Your task to perform on an android device: open app "Mercado Libre" (install if not already installed) Image 0: 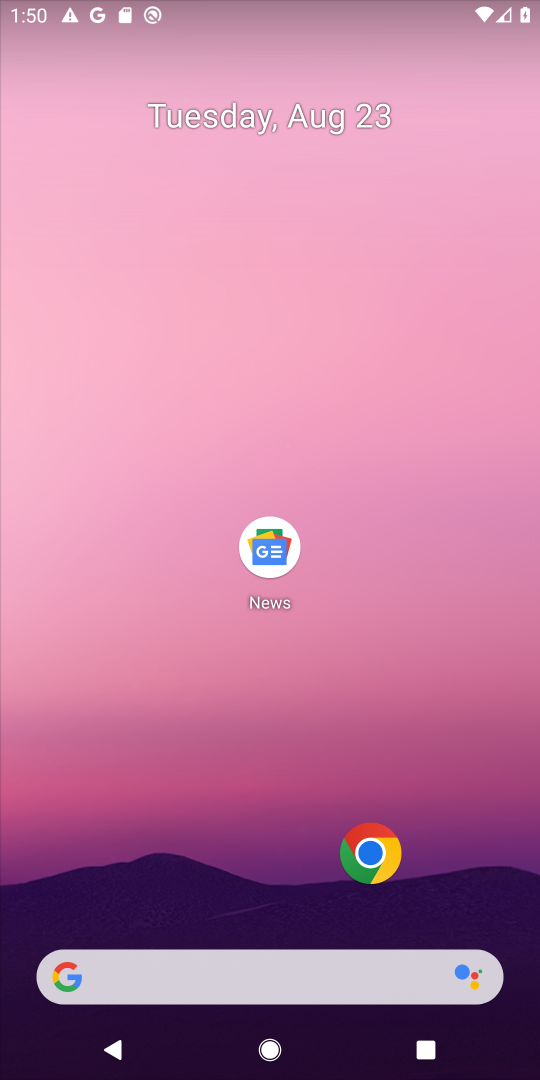
Step 0: drag from (461, 501) to (466, 98)
Your task to perform on an android device: open app "Mercado Libre" (install if not already installed) Image 1: 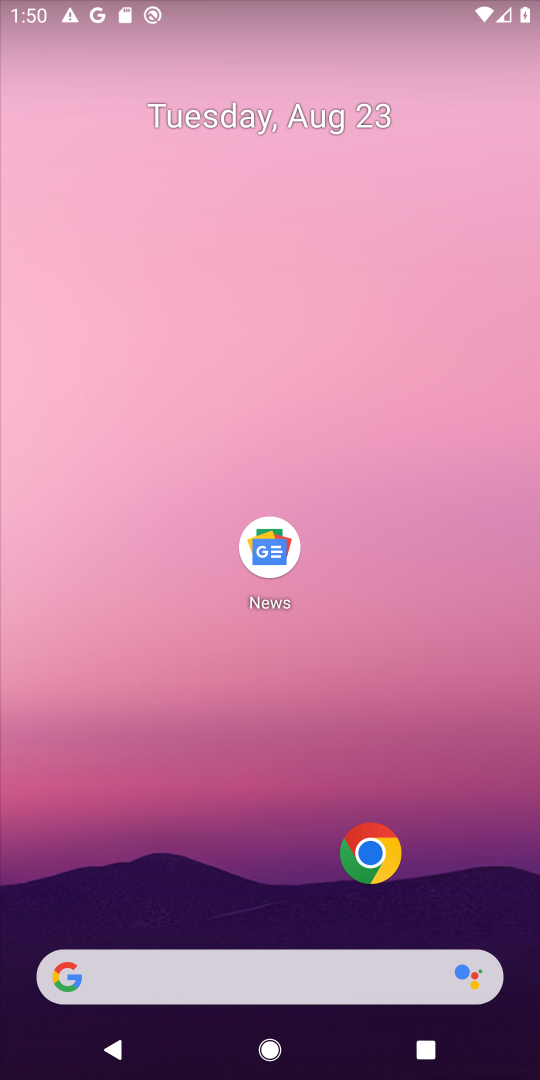
Step 1: drag from (511, 676) to (476, 135)
Your task to perform on an android device: open app "Mercado Libre" (install if not already installed) Image 2: 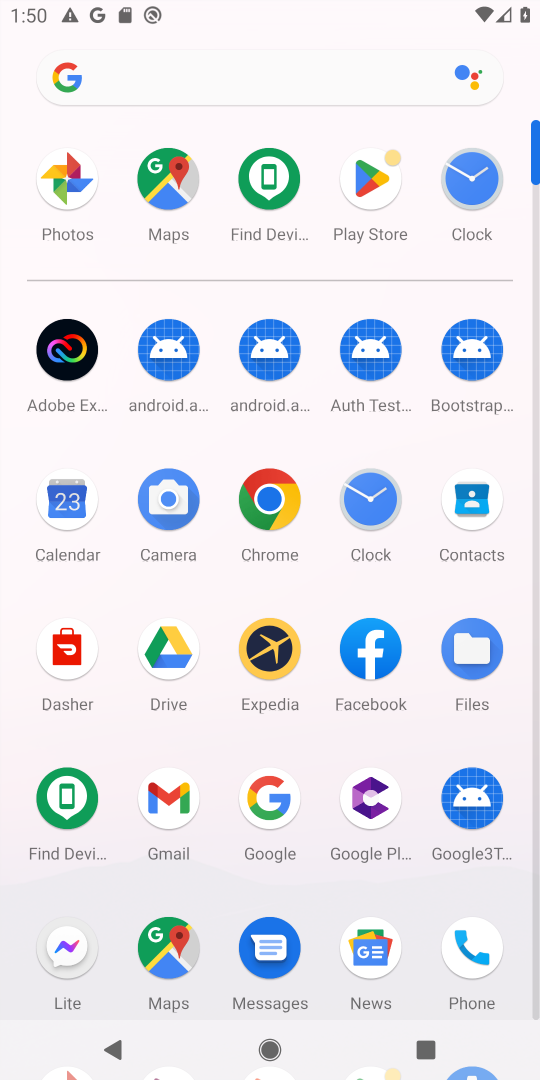
Step 2: drag from (425, 625) to (420, 356)
Your task to perform on an android device: open app "Mercado Libre" (install if not already installed) Image 3: 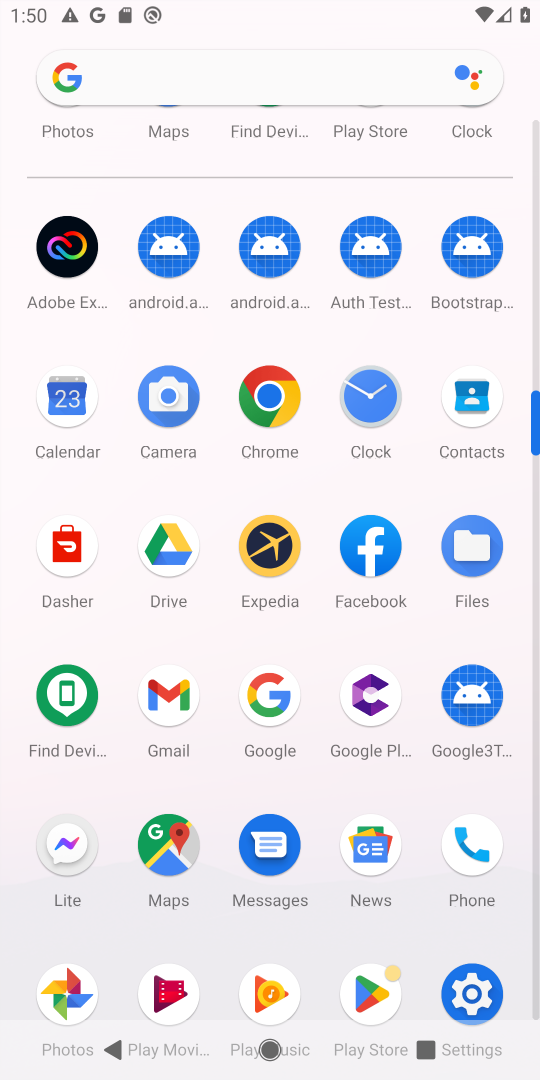
Step 3: click (373, 992)
Your task to perform on an android device: open app "Mercado Libre" (install if not already installed) Image 4: 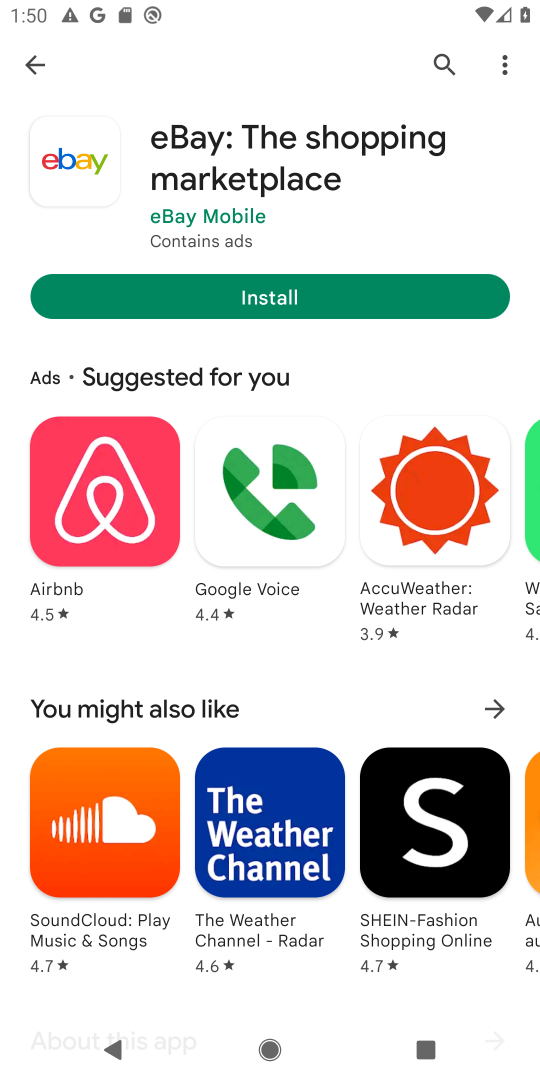
Step 4: click (440, 58)
Your task to perform on an android device: open app "Mercado Libre" (install if not already installed) Image 5: 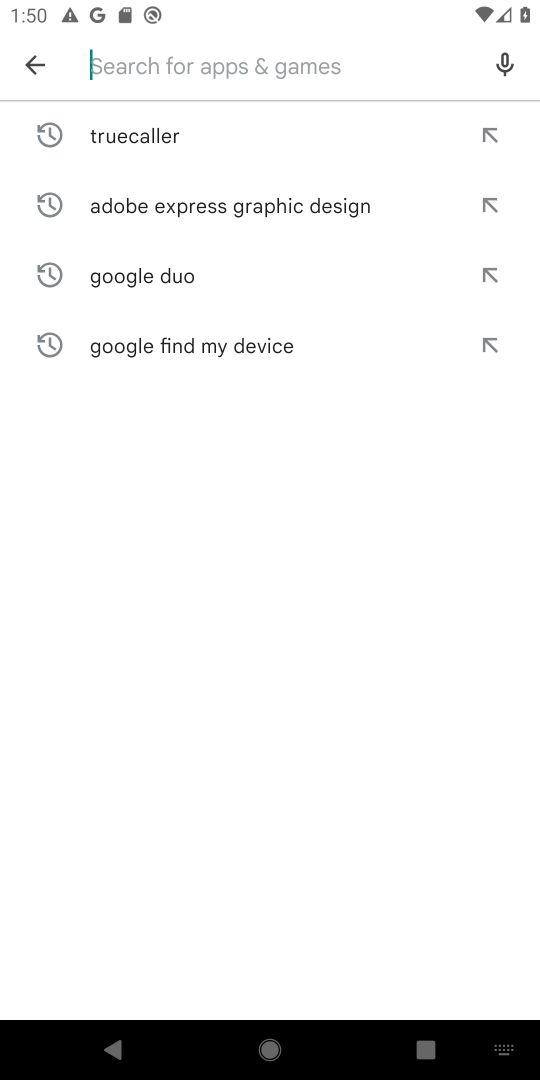
Step 5: type "Mercado Libre"
Your task to perform on an android device: open app "Mercado Libre" (install if not already installed) Image 6: 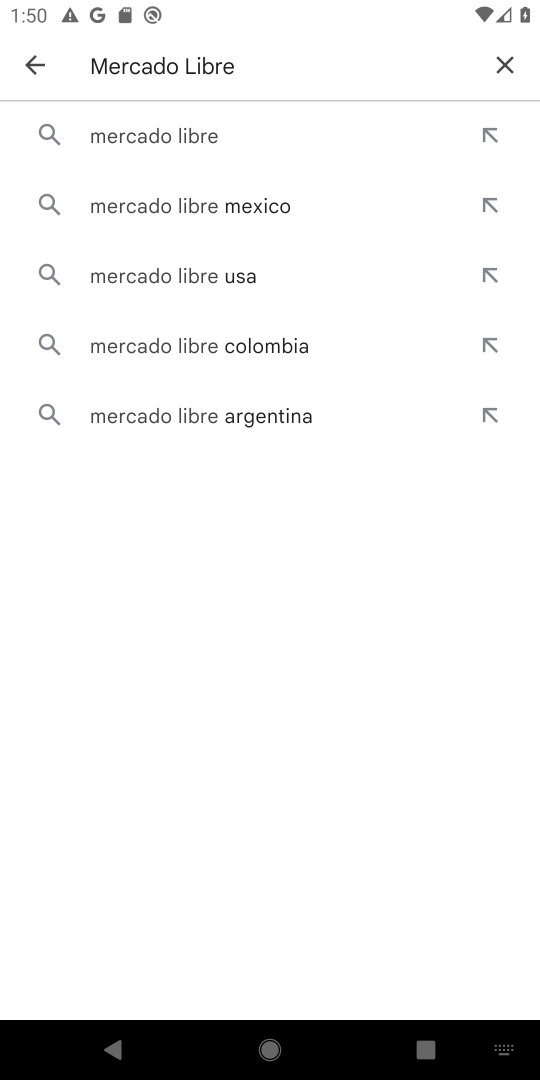
Step 6: click (152, 126)
Your task to perform on an android device: open app "Mercado Libre" (install if not already installed) Image 7: 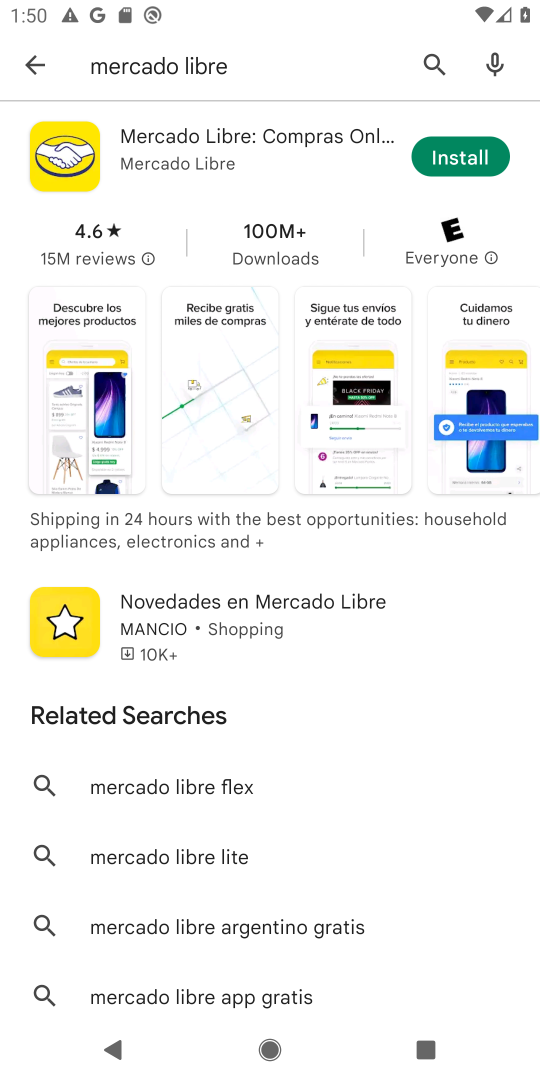
Step 7: click (456, 153)
Your task to perform on an android device: open app "Mercado Libre" (install if not already installed) Image 8: 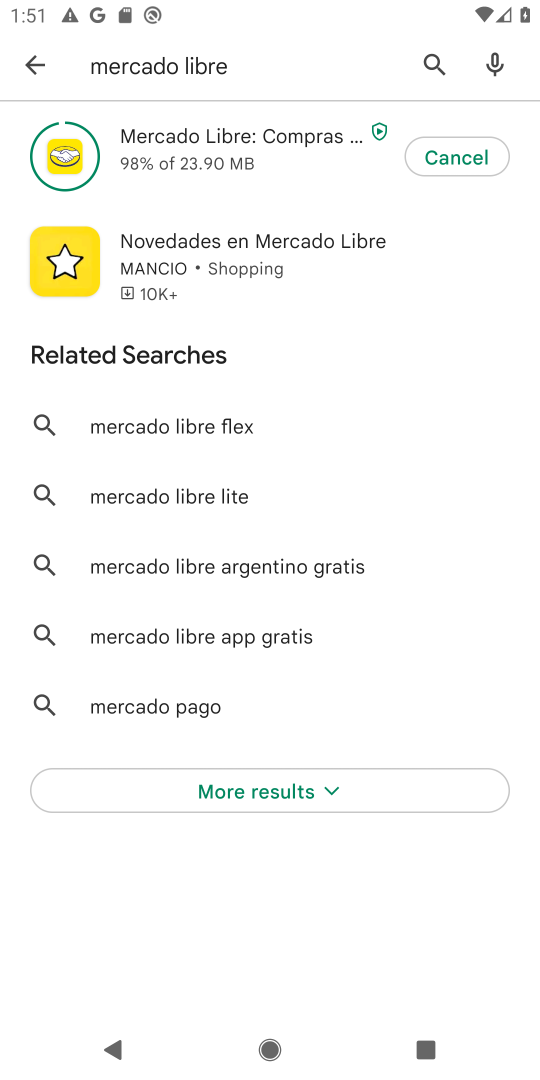
Step 8: click (149, 142)
Your task to perform on an android device: open app "Mercado Libre" (install if not already installed) Image 9: 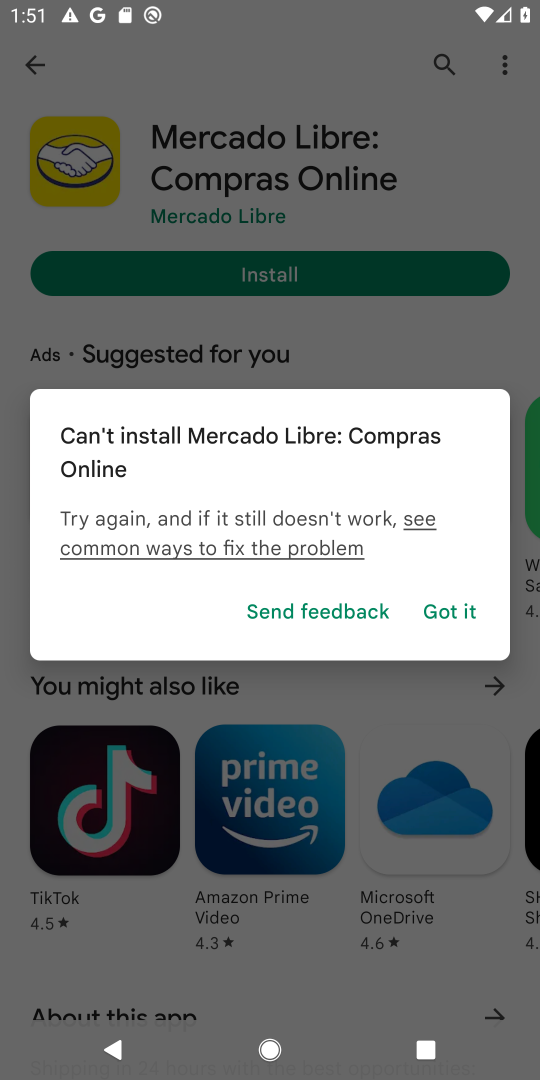
Step 9: click (444, 614)
Your task to perform on an android device: open app "Mercado Libre" (install if not already installed) Image 10: 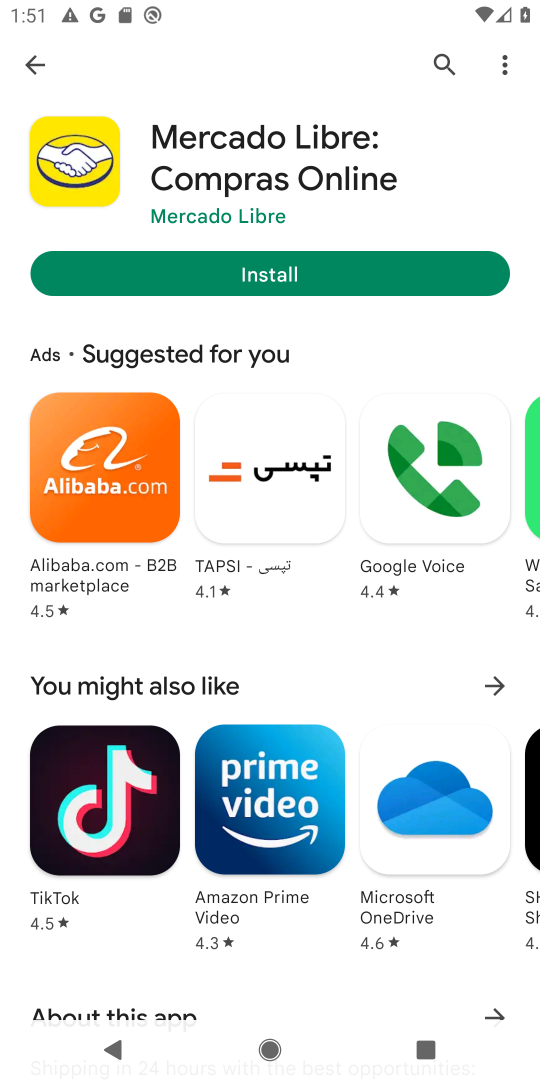
Step 10: click (273, 278)
Your task to perform on an android device: open app "Mercado Libre" (install if not already installed) Image 11: 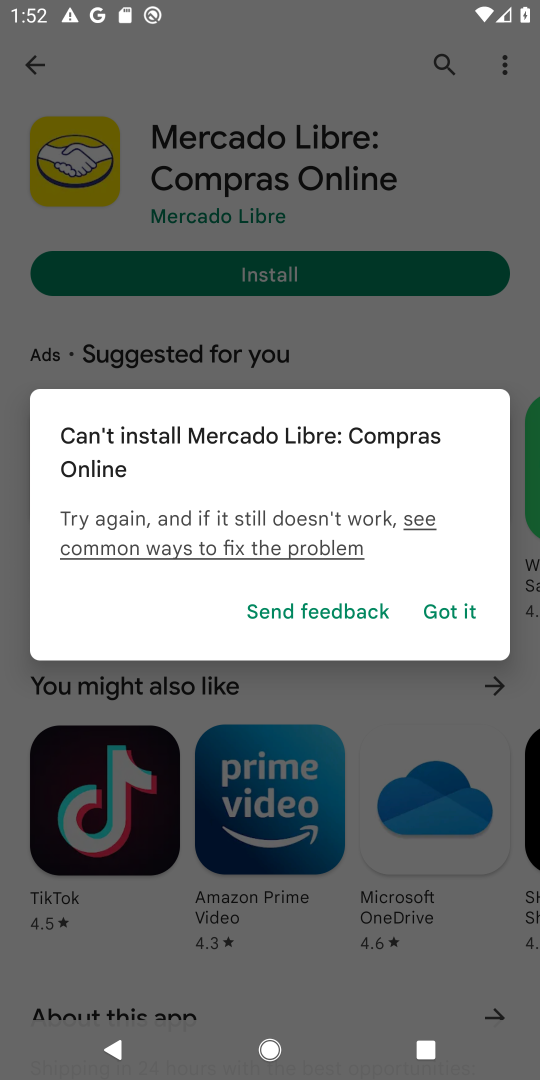
Step 11: task complete